Your task to perform on an android device: Go to Yahoo.com Image 0: 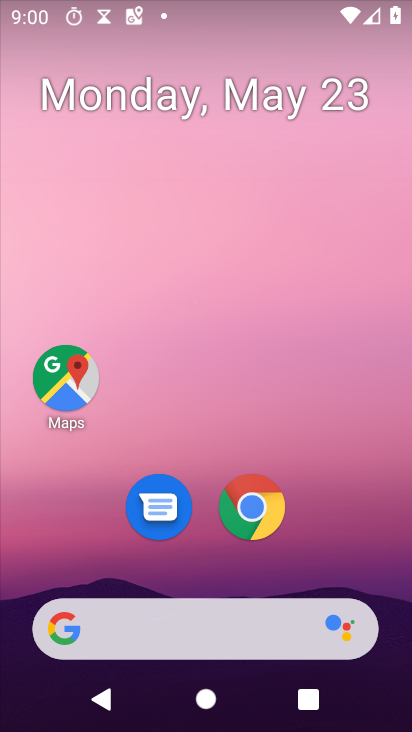
Step 0: drag from (366, 502) to (316, 79)
Your task to perform on an android device: Go to Yahoo.com Image 1: 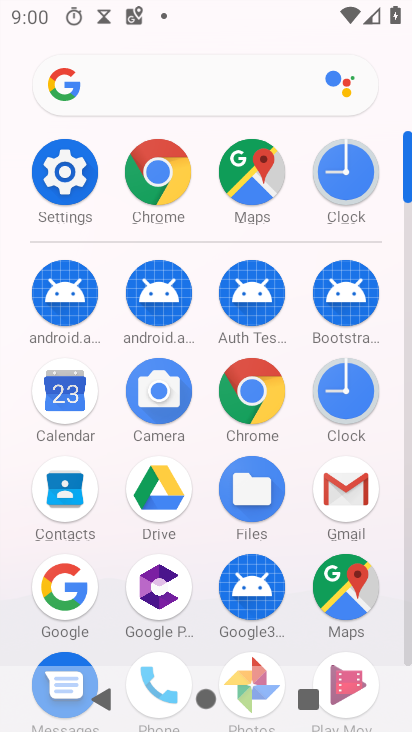
Step 1: click (171, 185)
Your task to perform on an android device: Go to Yahoo.com Image 2: 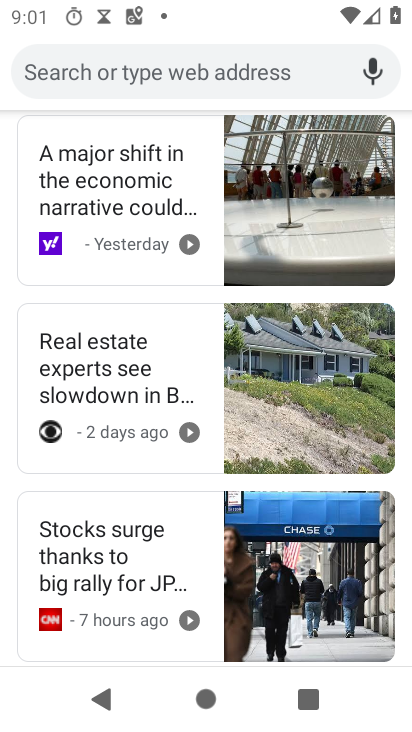
Step 2: click (190, 74)
Your task to perform on an android device: Go to Yahoo.com Image 3: 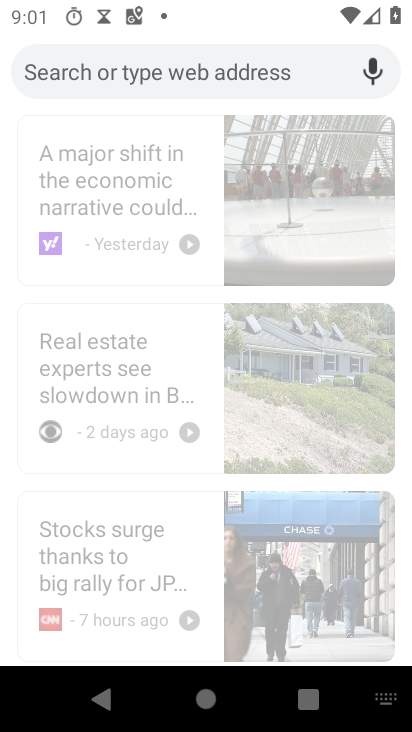
Step 3: type "yahoo"
Your task to perform on an android device: Go to Yahoo.com Image 4: 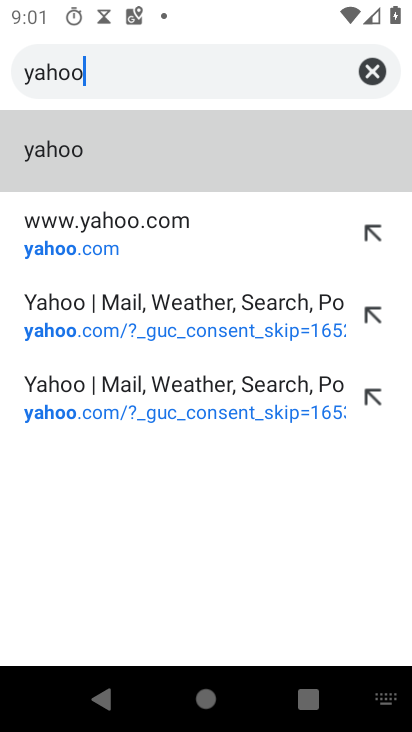
Step 4: click (115, 238)
Your task to perform on an android device: Go to Yahoo.com Image 5: 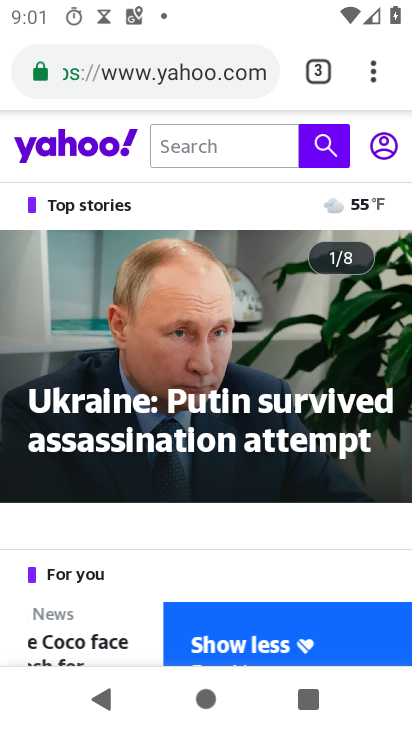
Step 5: task complete